Your task to perform on an android device: turn on javascript in the chrome app Image 0: 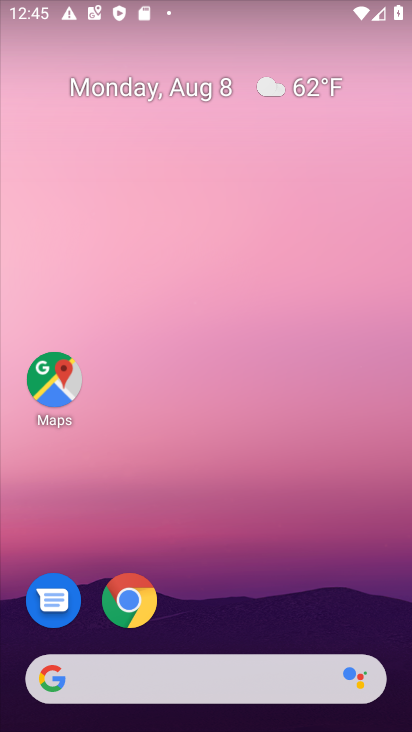
Step 0: click (148, 599)
Your task to perform on an android device: turn on javascript in the chrome app Image 1: 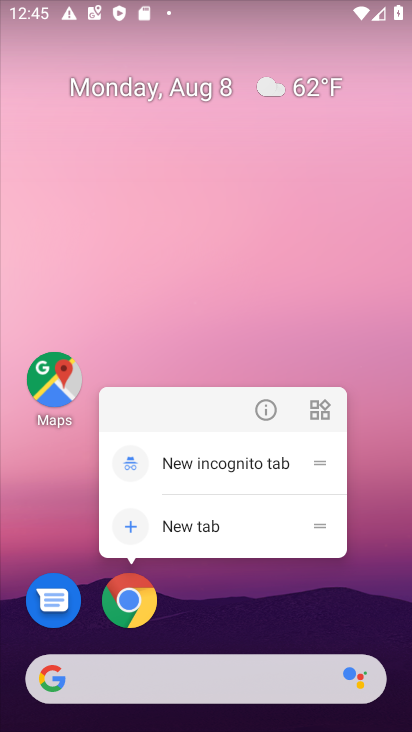
Step 1: click (148, 599)
Your task to perform on an android device: turn on javascript in the chrome app Image 2: 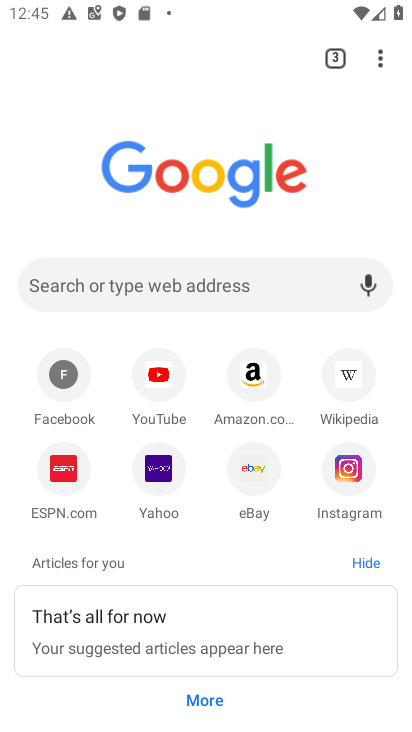
Step 2: click (379, 42)
Your task to perform on an android device: turn on javascript in the chrome app Image 3: 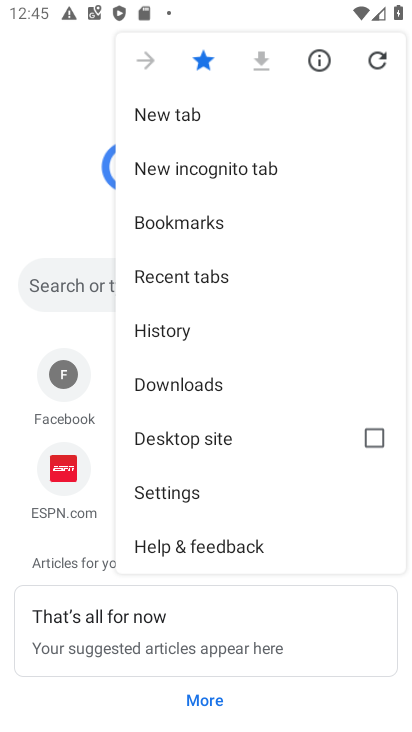
Step 3: click (174, 501)
Your task to perform on an android device: turn on javascript in the chrome app Image 4: 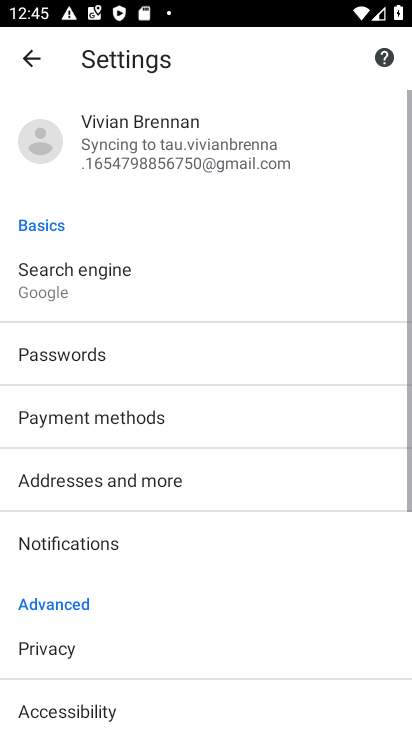
Step 4: drag from (178, 608) to (183, 296)
Your task to perform on an android device: turn on javascript in the chrome app Image 5: 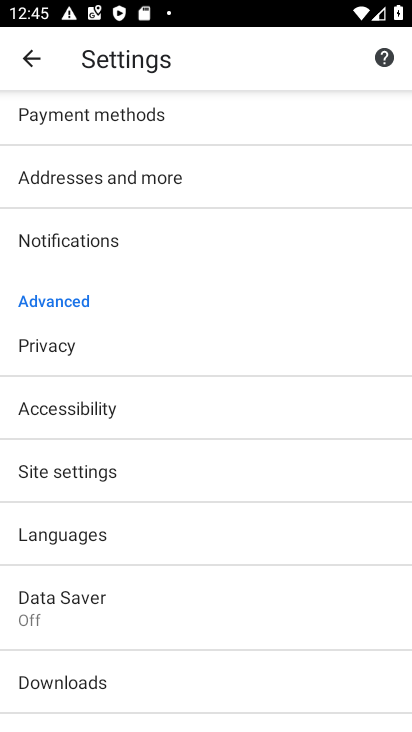
Step 5: click (94, 467)
Your task to perform on an android device: turn on javascript in the chrome app Image 6: 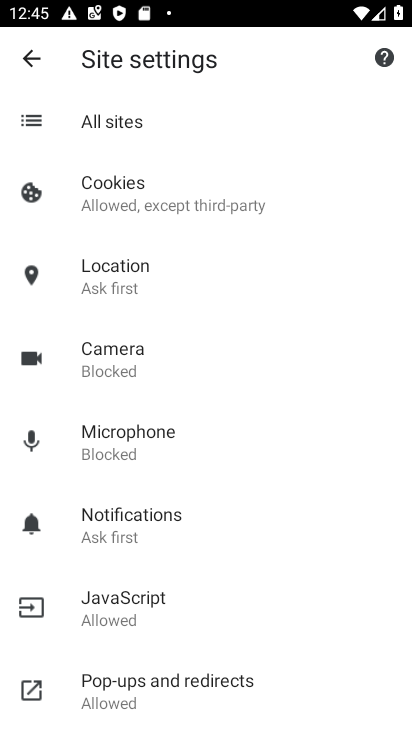
Step 6: drag from (191, 584) to (203, 421)
Your task to perform on an android device: turn on javascript in the chrome app Image 7: 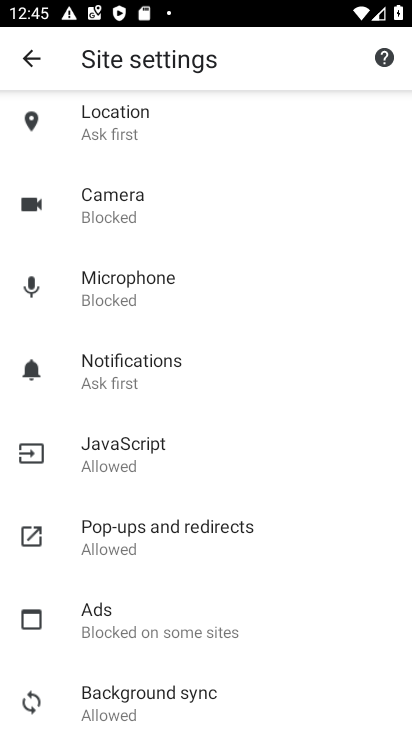
Step 7: click (177, 437)
Your task to perform on an android device: turn on javascript in the chrome app Image 8: 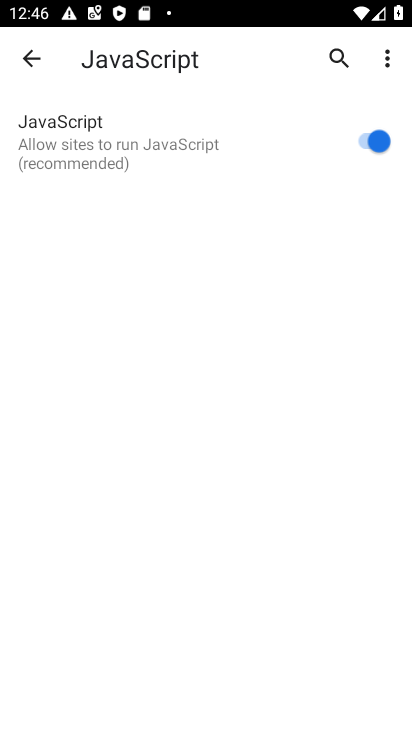
Step 8: task complete